Your task to perform on an android device: turn smart compose on in the gmail app Image 0: 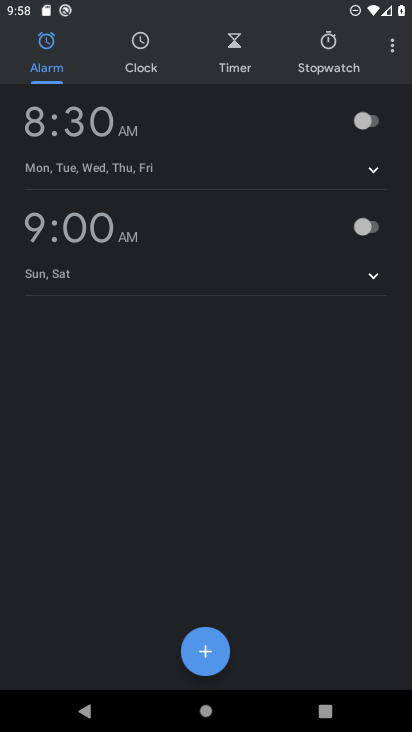
Step 0: press home button
Your task to perform on an android device: turn smart compose on in the gmail app Image 1: 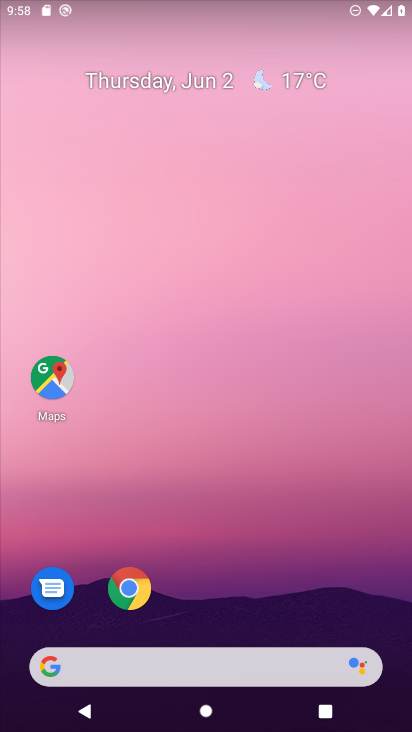
Step 1: drag from (200, 588) to (245, 71)
Your task to perform on an android device: turn smart compose on in the gmail app Image 2: 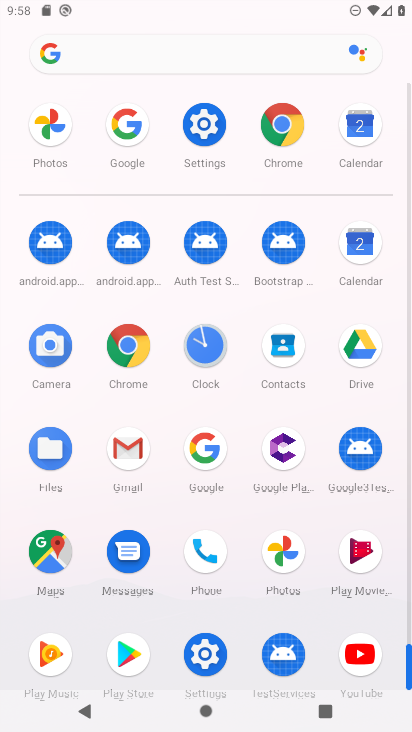
Step 2: click (126, 461)
Your task to perform on an android device: turn smart compose on in the gmail app Image 3: 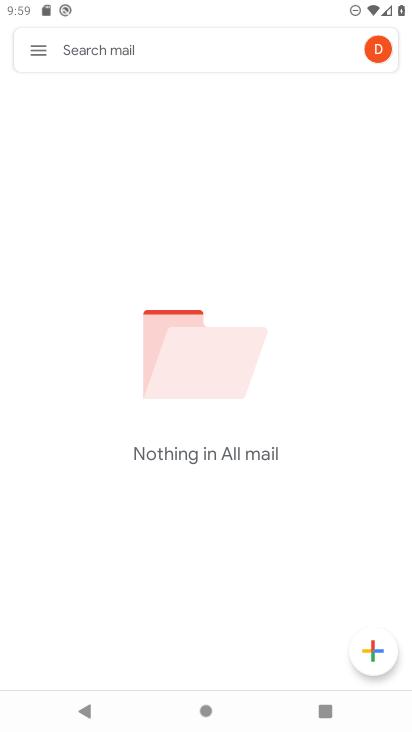
Step 3: click (36, 54)
Your task to perform on an android device: turn smart compose on in the gmail app Image 4: 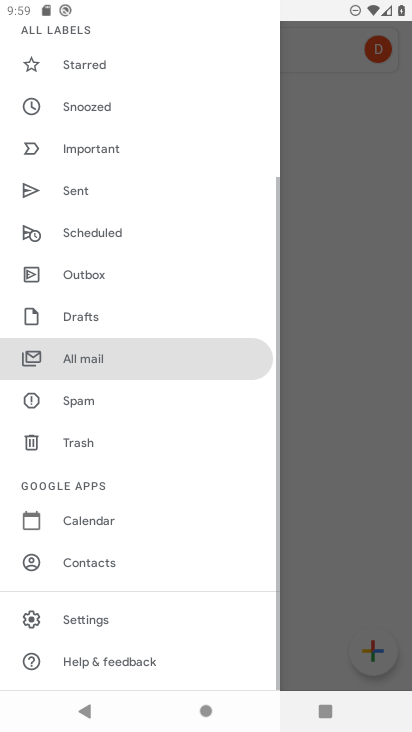
Step 4: click (91, 619)
Your task to perform on an android device: turn smart compose on in the gmail app Image 5: 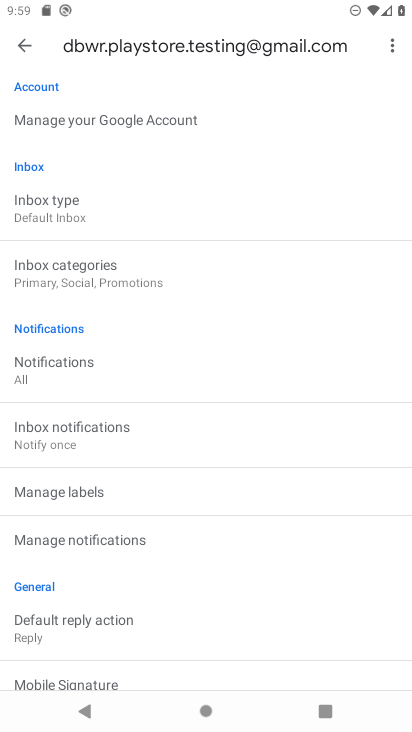
Step 5: task complete